Your task to perform on an android device: stop showing notifications on the lock screen Image 0: 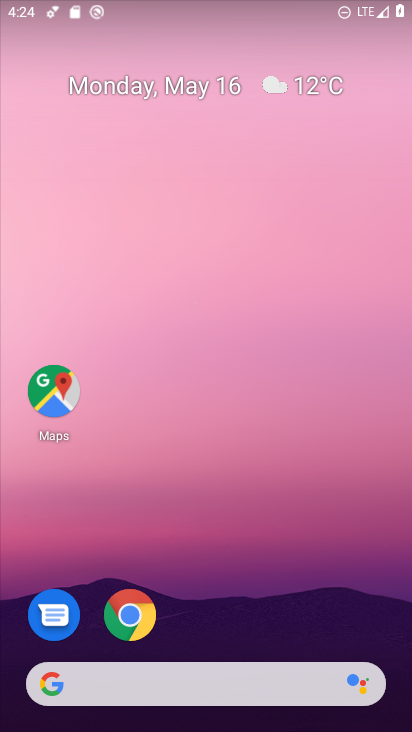
Step 0: drag from (220, 698) to (221, 76)
Your task to perform on an android device: stop showing notifications on the lock screen Image 1: 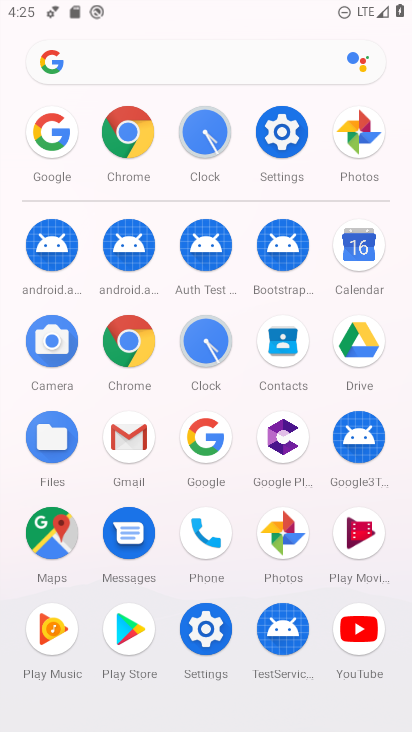
Step 1: click (285, 134)
Your task to perform on an android device: stop showing notifications on the lock screen Image 2: 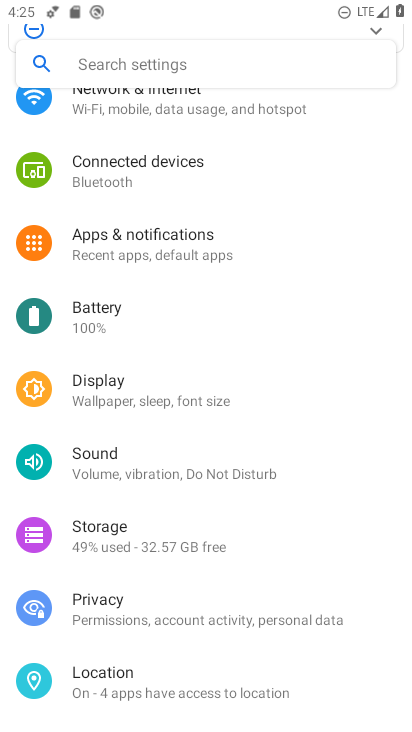
Step 2: click (156, 238)
Your task to perform on an android device: stop showing notifications on the lock screen Image 3: 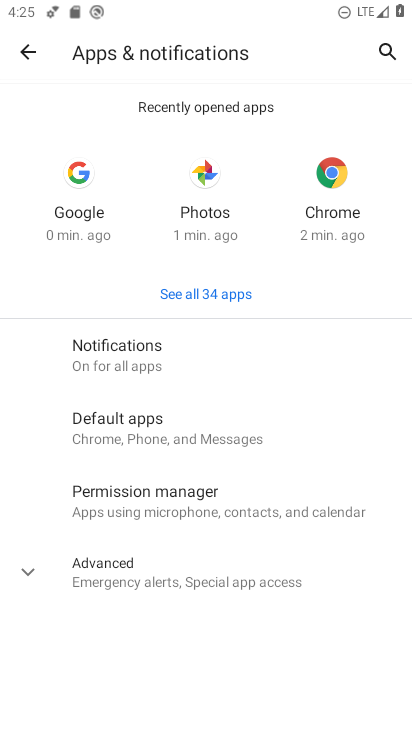
Step 3: click (107, 353)
Your task to perform on an android device: stop showing notifications on the lock screen Image 4: 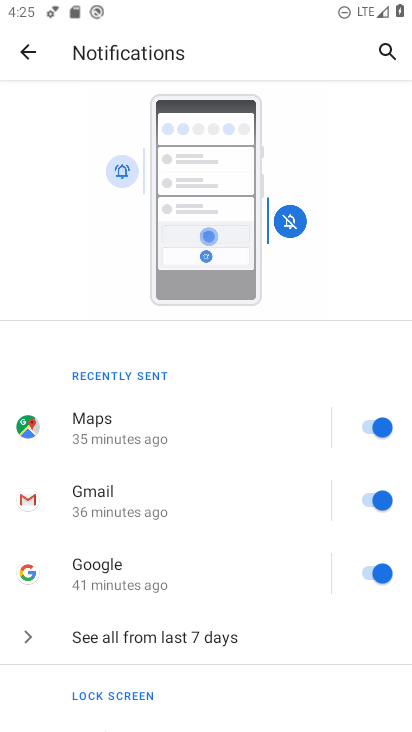
Step 4: drag from (227, 678) to (258, 289)
Your task to perform on an android device: stop showing notifications on the lock screen Image 5: 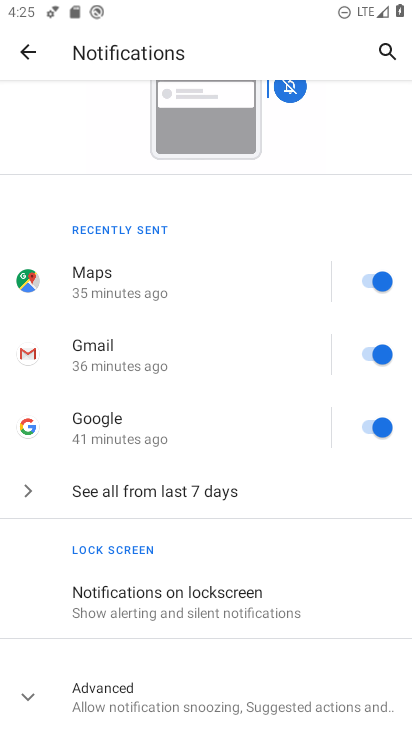
Step 5: click (144, 602)
Your task to perform on an android device: stop showing notifications on the lock screen Image 6: 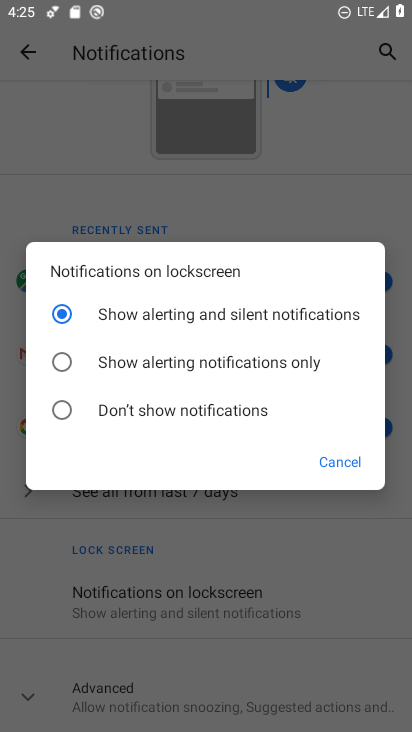
Step 6: click (59, 401)
Your task to perform on an android device: stop showing notifications on the lock screen Image 7: 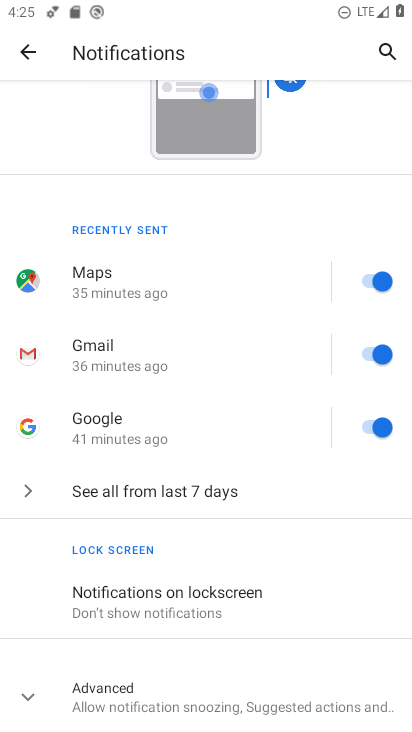
Step 7: task complete